Your task to perform on an android device: Find coffee shops on Maps Image 0: 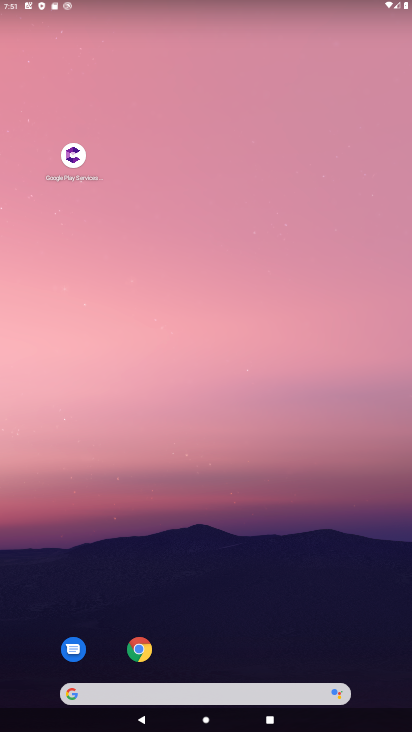
Step 0: drag from (150, 694) to (267, 208)
Your task to perform on an android device: Find coffee shops on Maps Image 1: 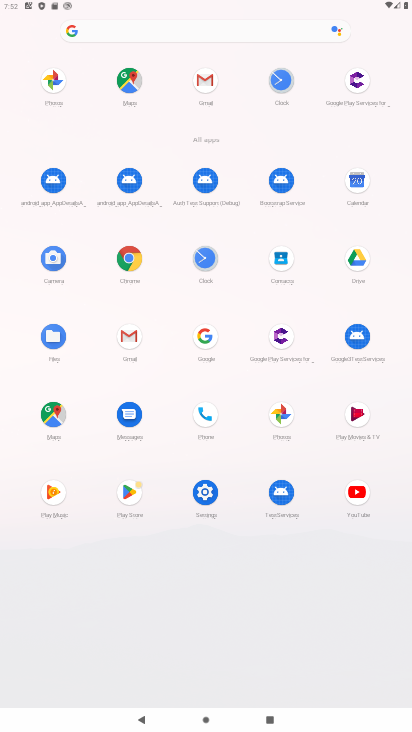
Step 1: click (54, 417)
Your task to perform on an android device: Find coffee shops on Maps Image 2: 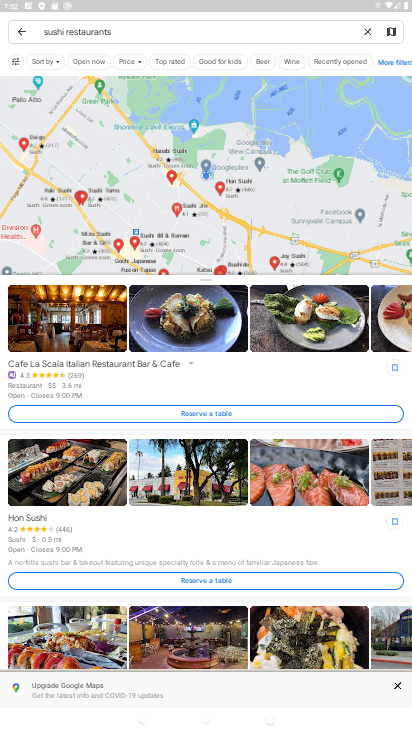
Step 2: click (368, 34)
Your task to perform on an android device: Find coffee shops on Maps Image 3: 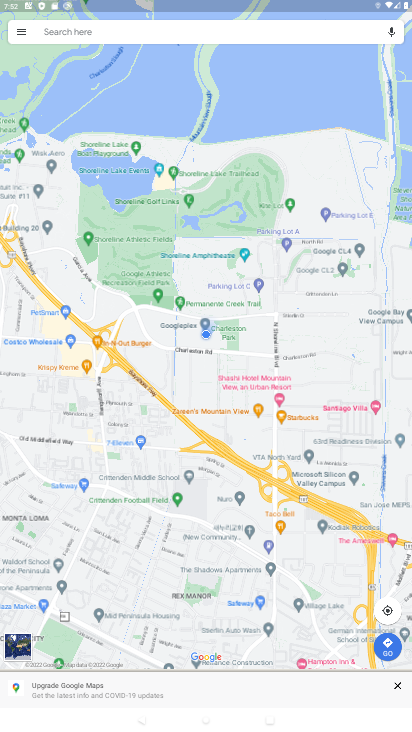
Step 3: click (207, 35)
Your task to perform on an android device: Find coffee shops on Maps Image 4: 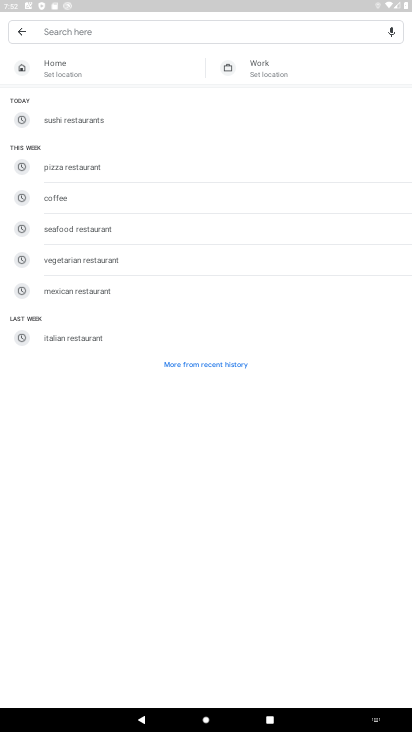
Step 4: type "coffee shops"
Your task to perform on an android device: Find coffee shops on Maps Image 5: 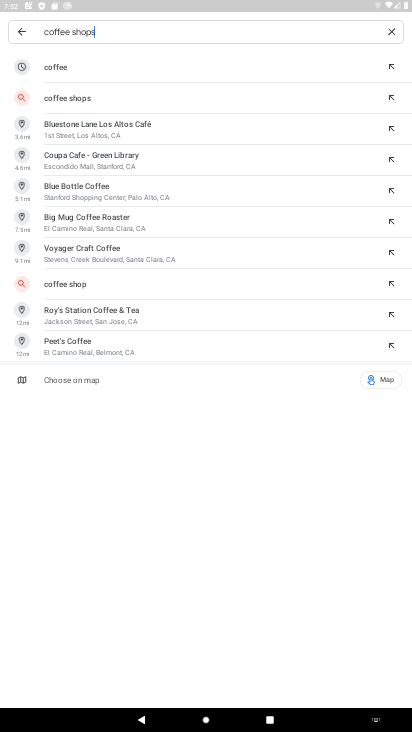
Step 5: click (74, 93)
Your task to perform on an android device: Find coffee shops on Maps Image 6: 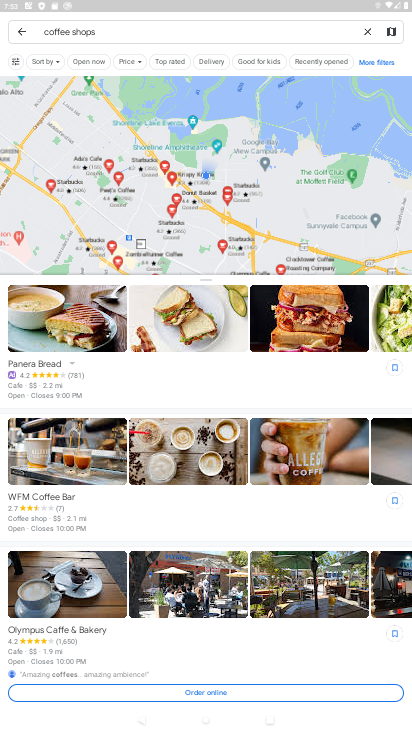
Step 6: task complete